Your task to perform on an android device: turn notification dots off Image 0: 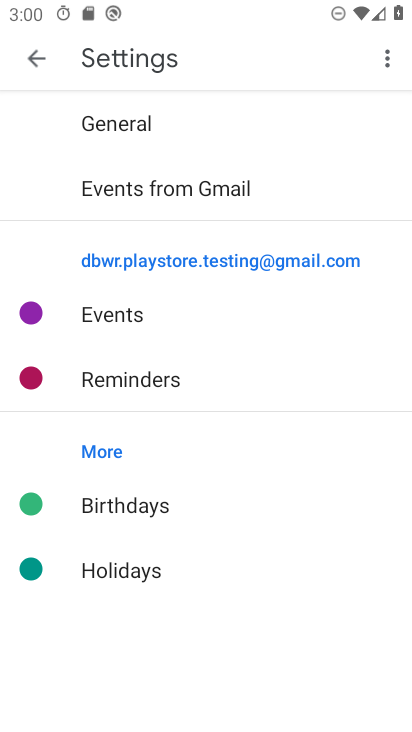
Step 0: press home button
Your task to perform on an android device: turn notification dots off Image 1: 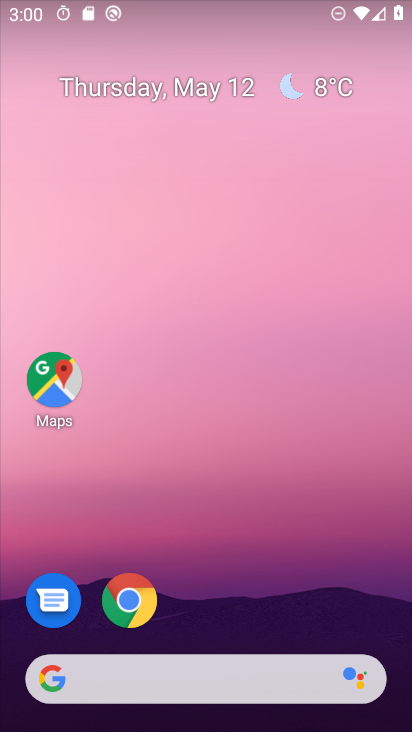
Step 1: drag from (213, 721) to (213, 172)
Your task to perform on an android device: turn notification dots off Image 2: 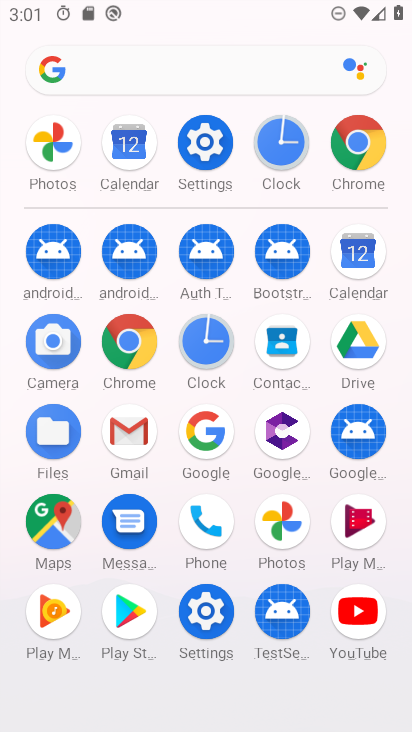
Step 2: click (207, 141)
Your task to perform on an android device: turn notification dots off Image 3: 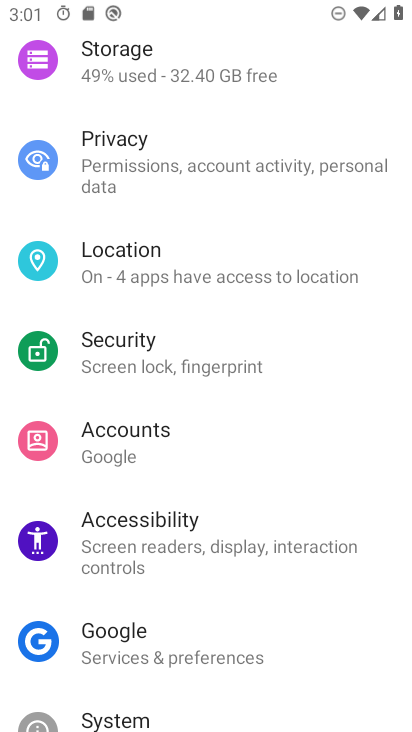
Step 3: drag from (192, 246) to (188, 611)
Your task to perform on an android device: turn notification dots off Image 4: 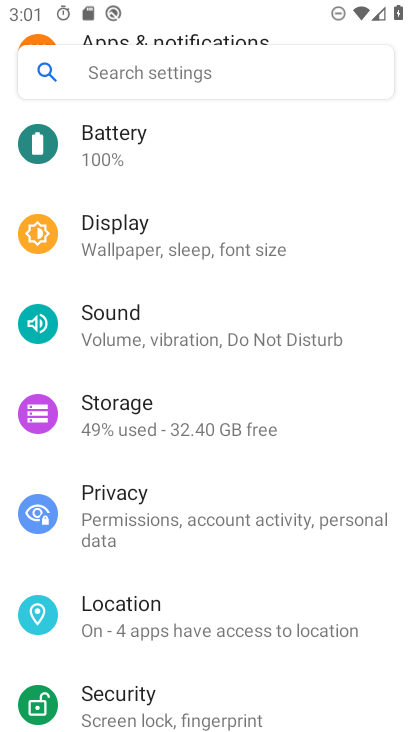
Step 4: drag from (168, 223) to (176, 594)
Your task to perform on an android device: turn notification dots off Image 5: 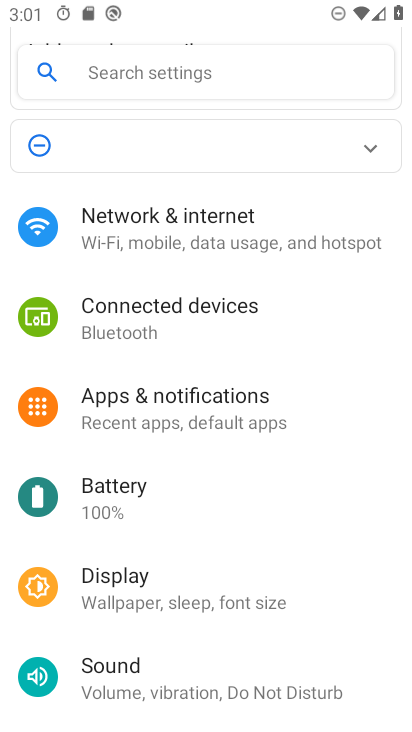
Step 5: click (193, 402)
Your task to perform on an android device: turn notification dots off Image 6: 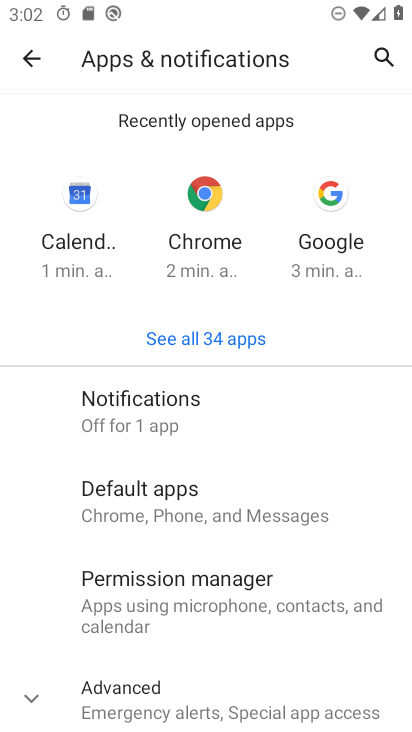
Step 6: click (149, 420)
Your task to perform on an android device: turn notification dots off Image 7: 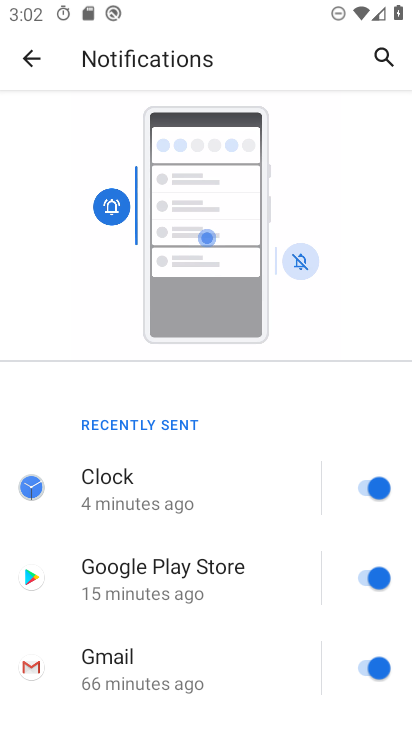
Step 7: drag from (221, 684) to (218, 330)
Your task to perform on an android device: turn notification dots off Image 8: 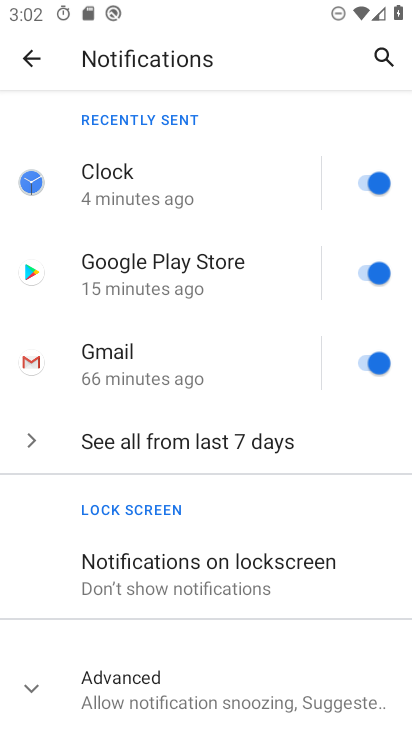
Step 8: click (131, 686)
Your task to perform on an android device: turn notification dots off Image 9: 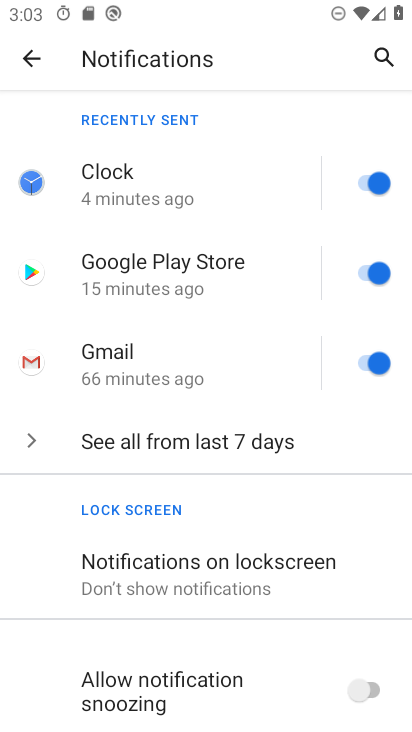
Step 9: drag from (145, 669) to (147, 296)
Your task to perform on an android device: turn notification dots off Image 10: 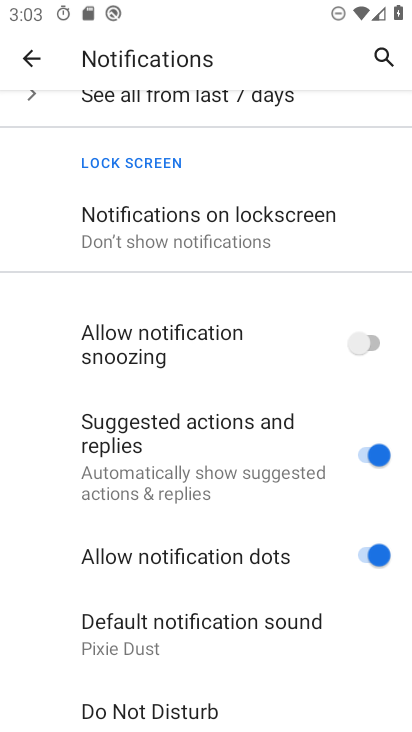
Step 10: click (357, 552)
Your task to perform on an android device: turn notification dots off Image 11: 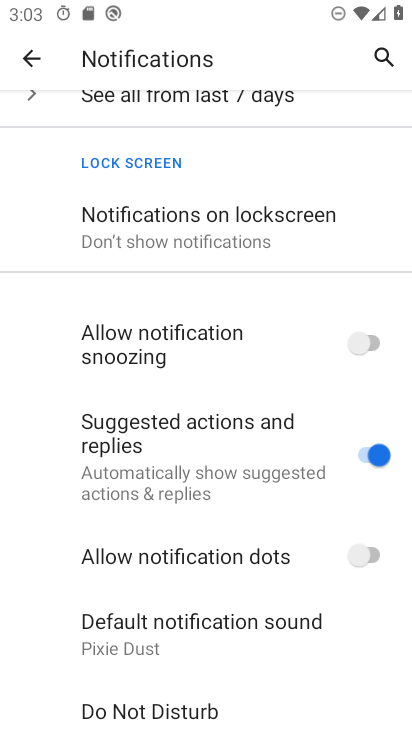
Step 11: task complete